Your task to perform on an android device: change the clock display to digital Image 0: 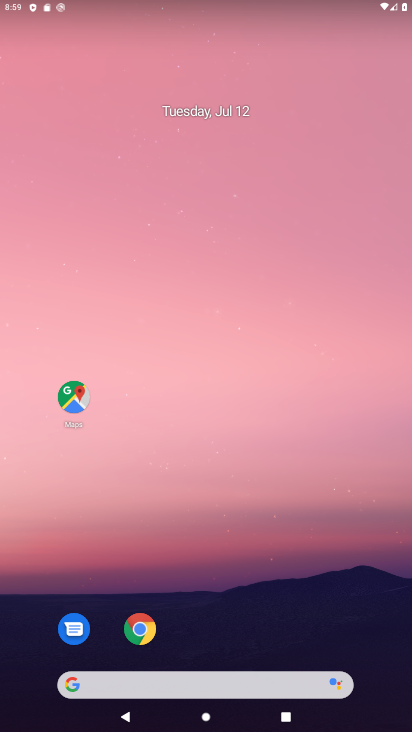
Step 0: drag from (291, 612) to (235, 12)
Your task to perform on an android device: change the clock display to digital Image 1: 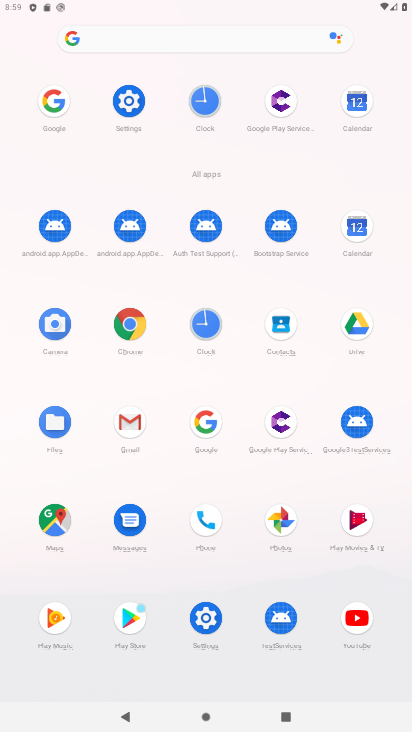
Step 1: click (213, 327)
Your task to perform on an android device: change the clock display to digital Image 2: 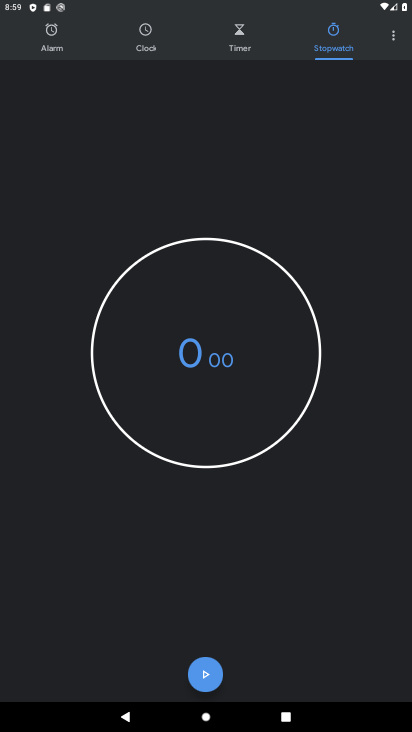
Step 2: click (391, 37)
Your task to perform on an android device: change the clock display to digital Image 3: 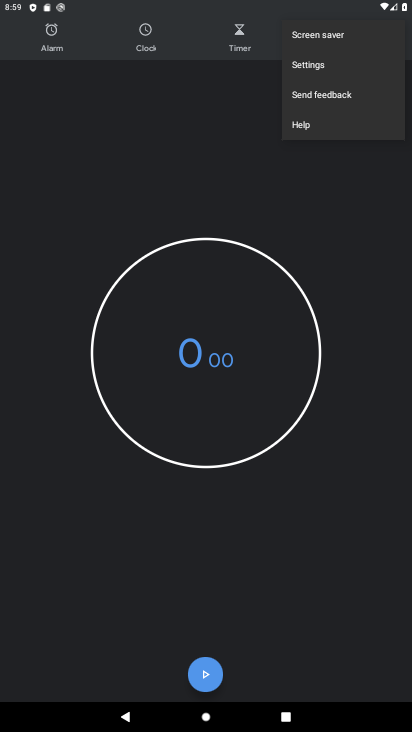
Step 3: click (332, 68)
Your task to perform on an android device: change the clock display to digital Image 4: 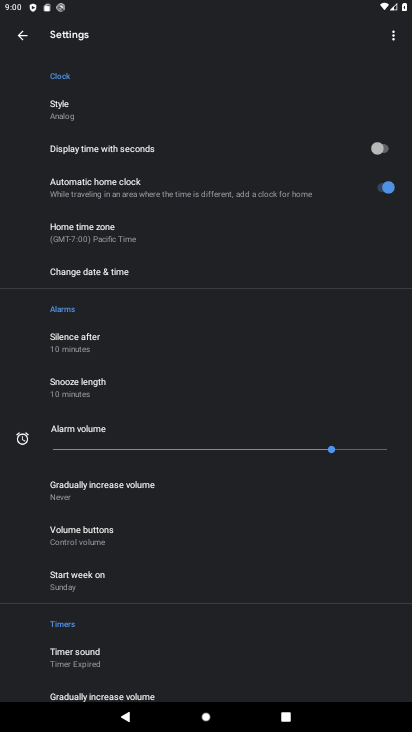
Step 4: click (165, 113)
Your task to perform on an android device: change the clock display to digital Image 5: 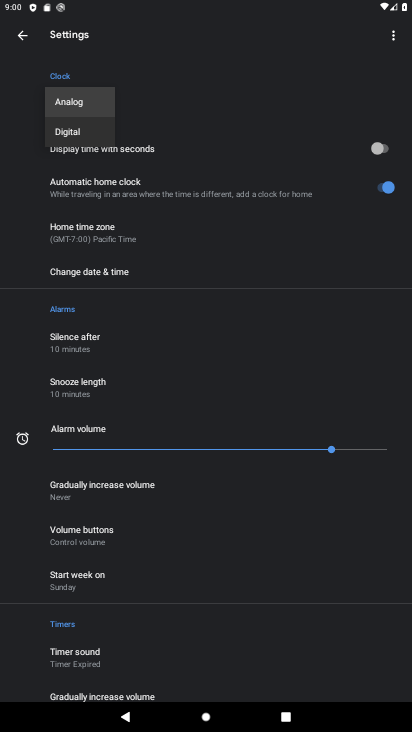
Step 5: click (100, 140)
Your task to perform on an android device: change the clock display to digital Image 6: 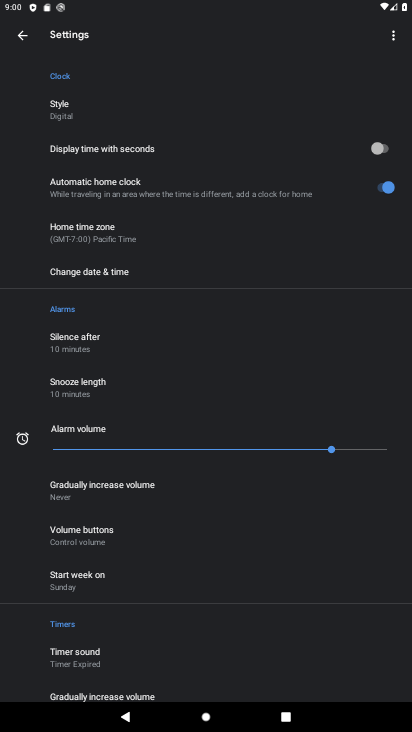
Step 6: task complete